Your task to perform on an android device: set the stopwatch Image 0: 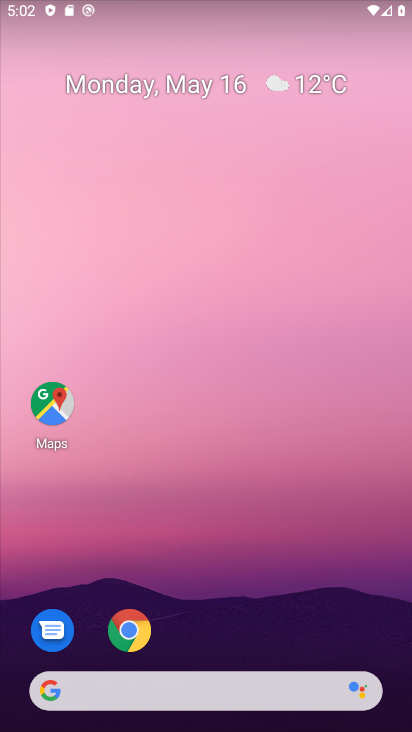
Step 0: drag from (241, 597) to (282, 95)
Your task to perform on an android device: set the stopwatch Image 1: 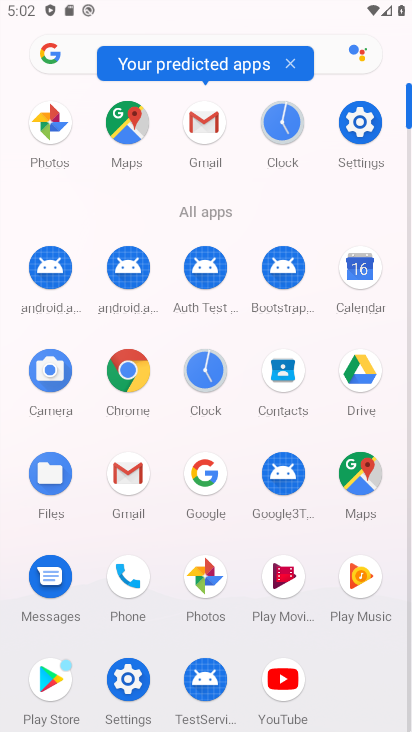
Step 1: click (282, 128)
Your task to perform on an android device: set the stopwatch Image 2: 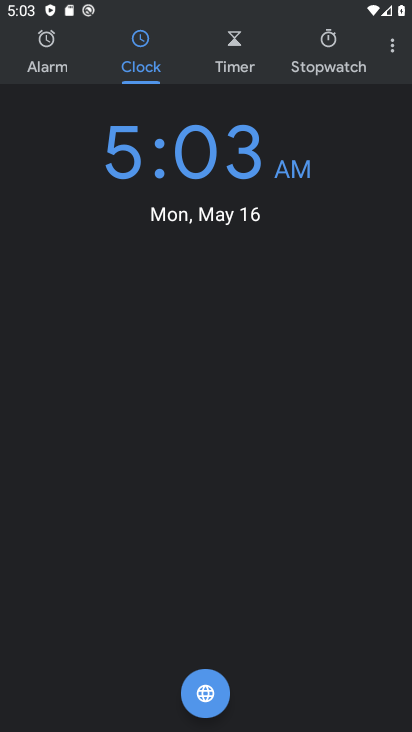
Step 2: click (342, 61)
Your task to perform on an android device: set the stopwatch Image 3: 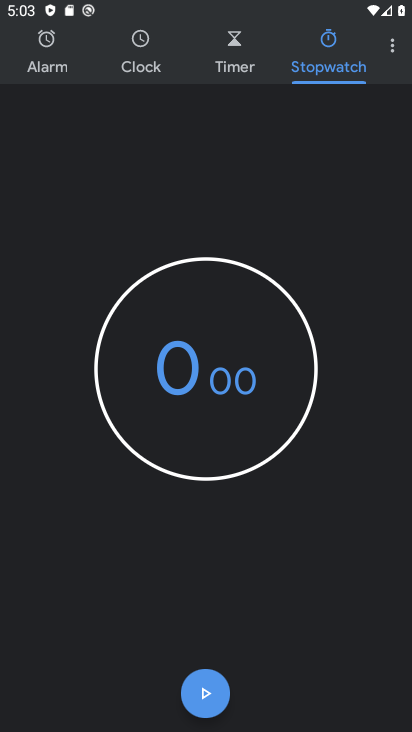
Step 3: click (221, 695)
Your task to perform on an android device: set the stopwatch Image 4: 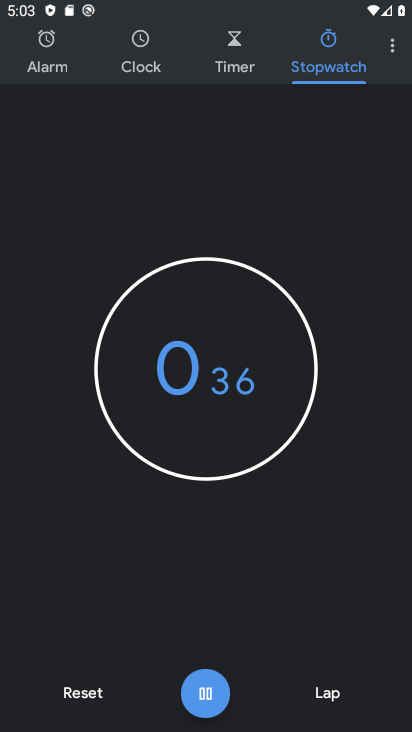
Step 4: click (221, 695)
Your task to perform on an android device: set the stopwatch Image 5: 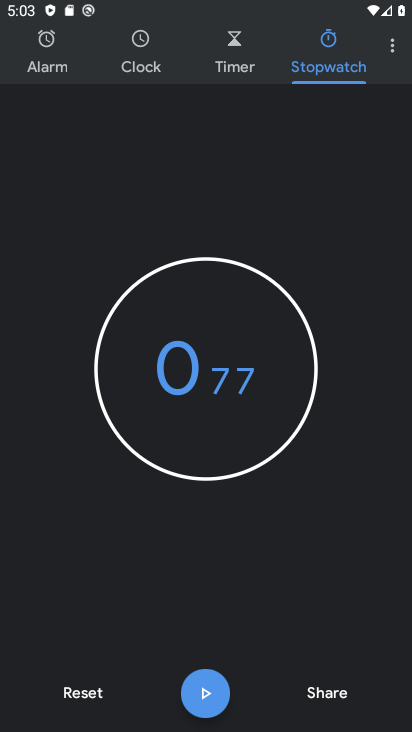
Step 5: task complete